Your task to perform on an android device: turn notification dots off Image 0: 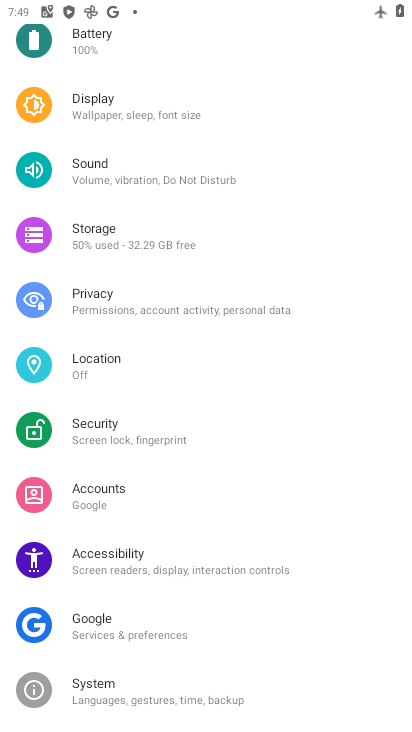
Step 0: drag from (120, 117) to (187, 652)
Your task to perform on an android device: turn notification dots off Image 1: 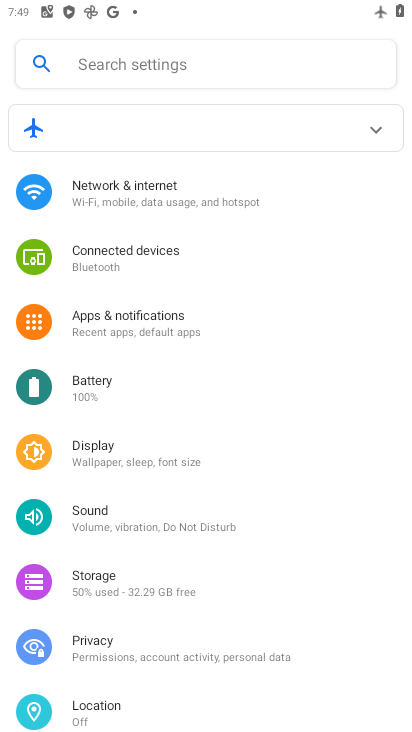
Step 1: click (139, 318)
Your task to perform on an android device: turn notification dots off Image 2: 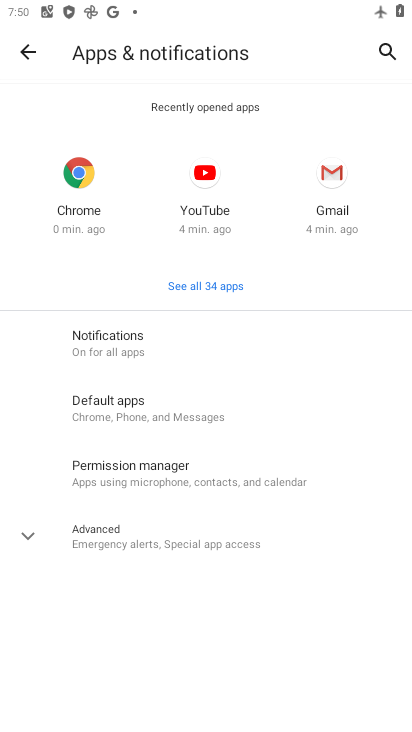
Step 2: click (175, 345)
Your task to perform on an android device: turn notification dots off Image 3: 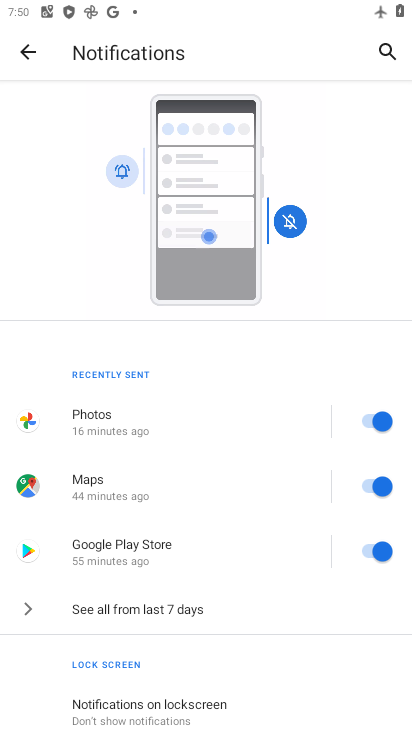
Step 3: drag from (164, 680) to (222, 190)
Your task to perform on an android device: turn notification dots off Image 4: 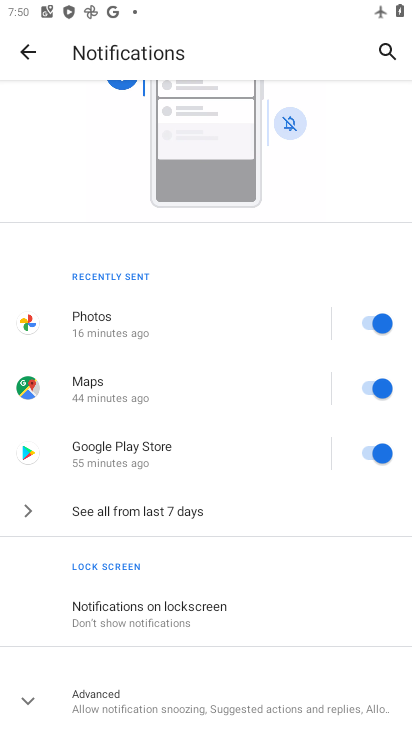
Step 4: click (121, 699)
Your task to perform on an android device: turn notification dots off Image 5: 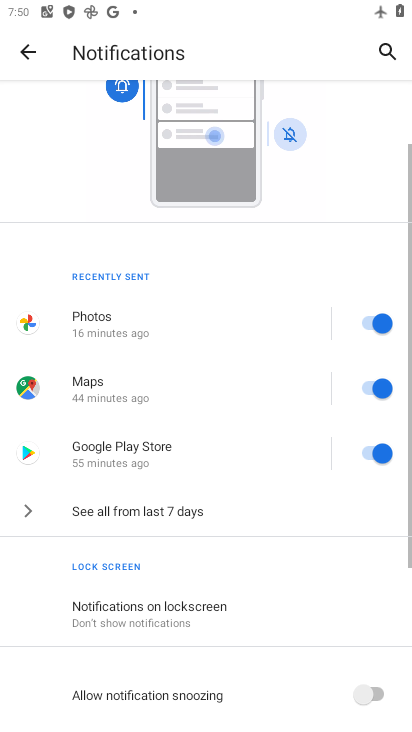
Step 5: drag from (121, 699) to (195, 133)
Your task to perform on an android device: turn notification dots off Image 6: 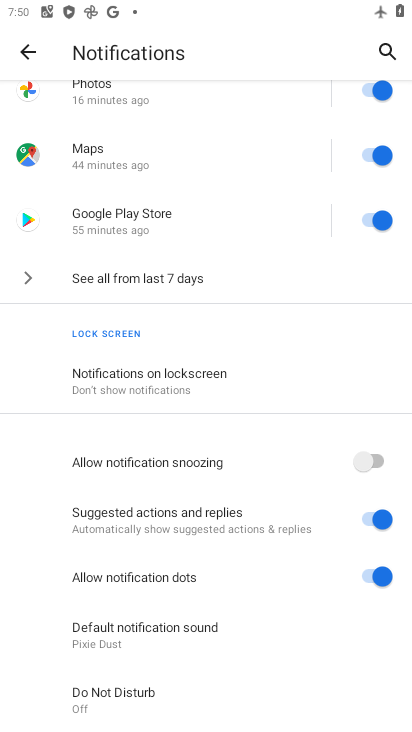
Step 6: click (217, 577)
Your task to perform on an android device: turn notification dots off Image 7: 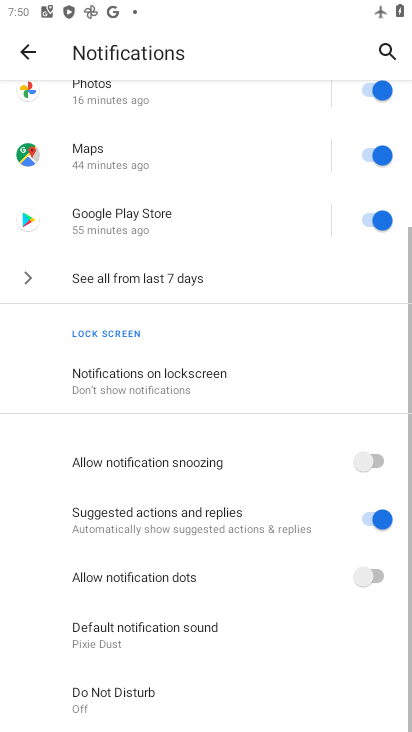
Step 7: task complete